Your task to perform on an android device: What is the news today? Image 0: 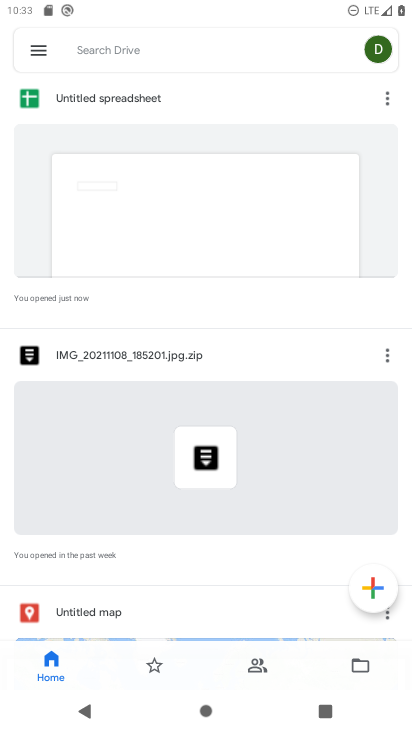
Step 0: press home button
Your task to perform on an android device: What is the news today? Image 1: 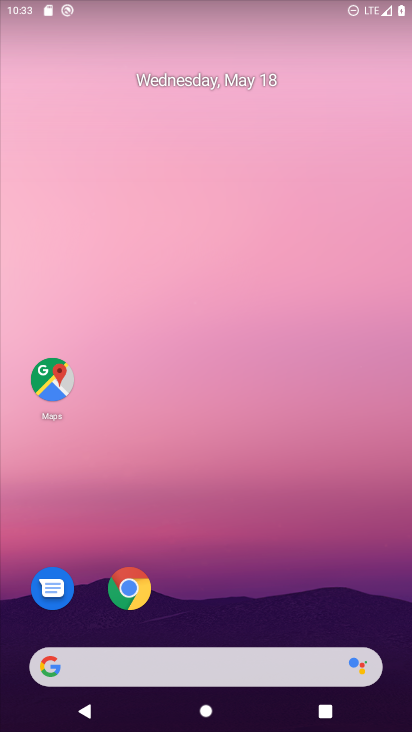
Step 1: click (119, 666)
Your task to perform on an android device: What is the news today? Image 2: 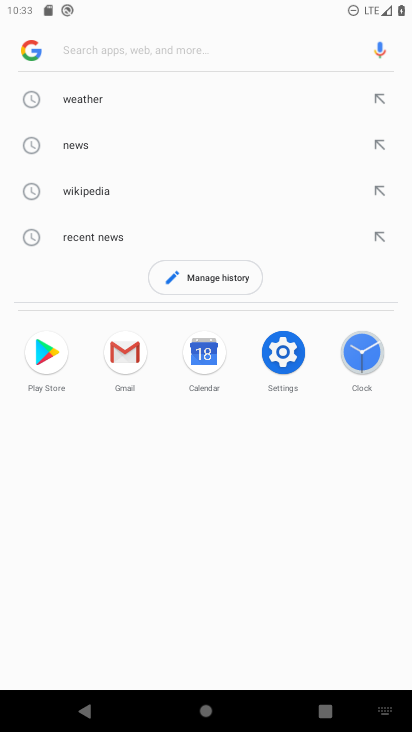
Step 2: click (77, 51)
Your task to perform on an android device: What is the news today? Image 3: 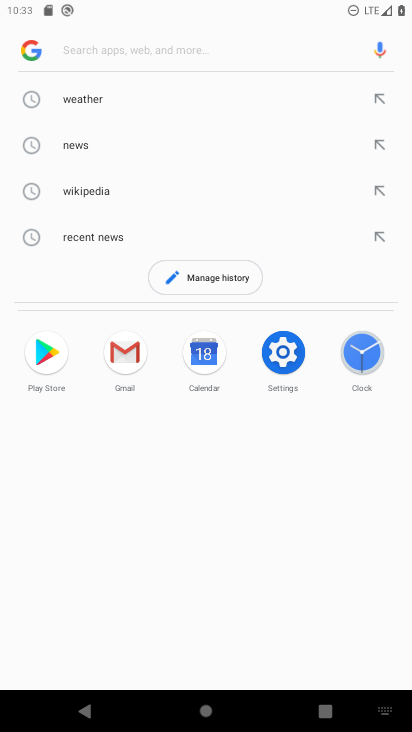
Step 3: type "news today"
Your task to perform on an android device: What is the news today? Image 4: 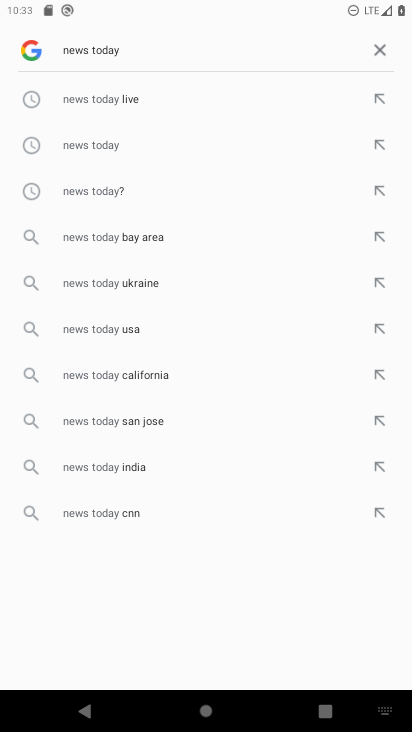
Step 4: click (87, 147)
Your task to perform on an android device: What is the news today? Image 5: 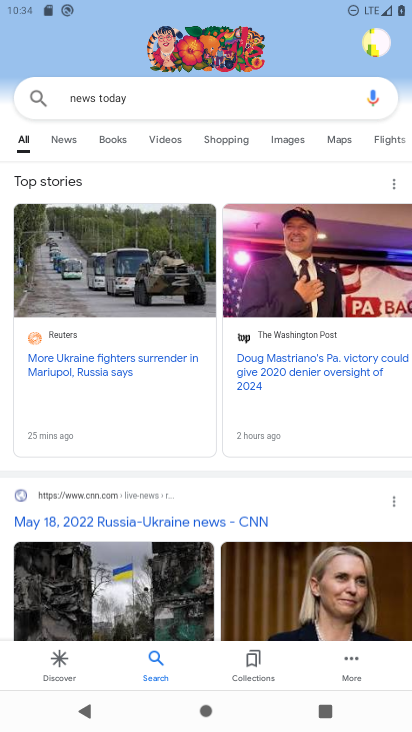
Step 5: click (107, 295)
Your task to perform on an android device: What is the news today? Image 6: 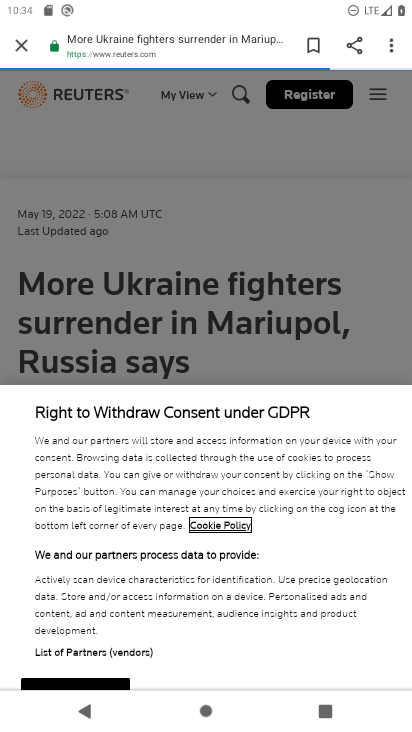
Step 6: task complete